Your task to perform on an android device: change the clock display to show seconds Image 0: 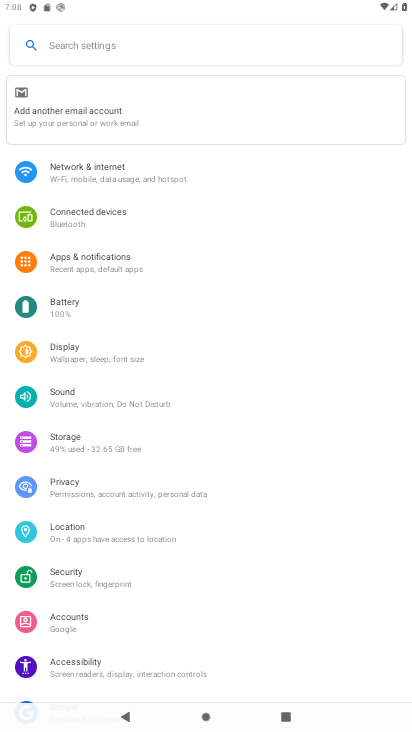
Step 0: press home button
Your task to perform on an android device: change the clock display to show seconds Image 1: 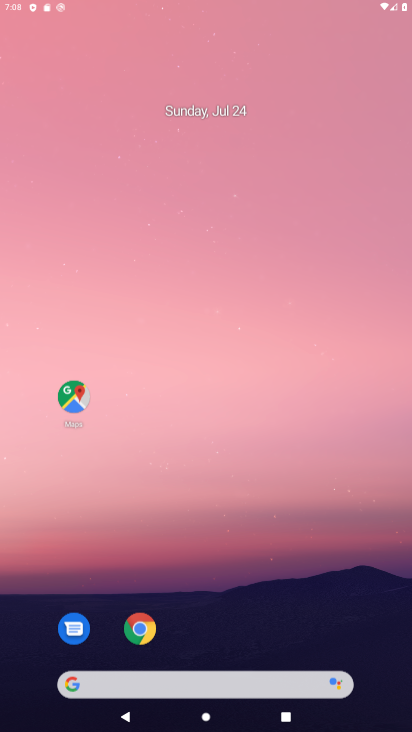
Step 1: drag from (403, 696) to (225, 5)
Your task to perform on an android device: change the clock display to show seconds Image 2: 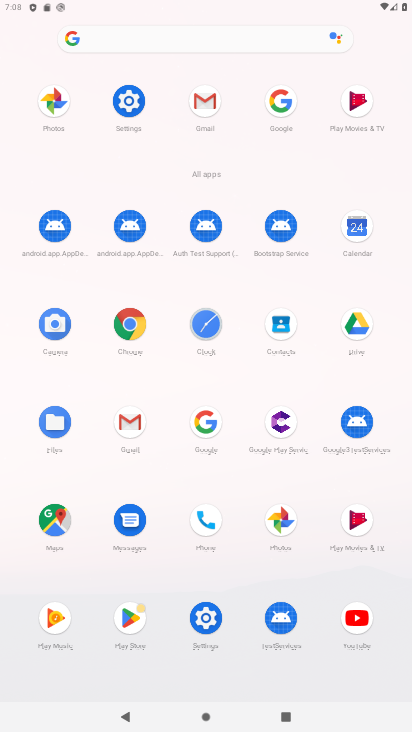
Step 2: click (212, 321)
Your task to perform on an android device: change the clock display to show seconds Image 3: 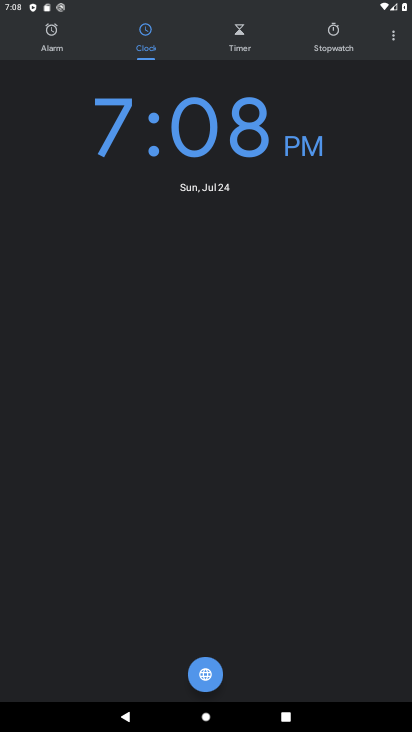
Step 3: click (394, 30)
Your task to perform on an android device: change the clock display to show seconds Image 4: 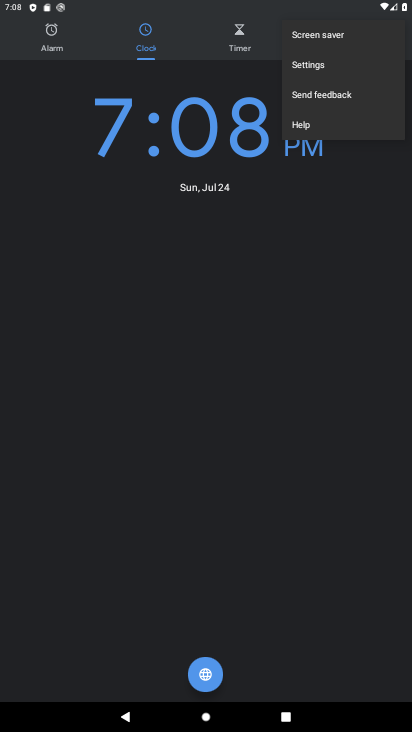
Step 4: click (312, 64)
Your task to perform on an android device: change the clock display to show seconds Image 5: 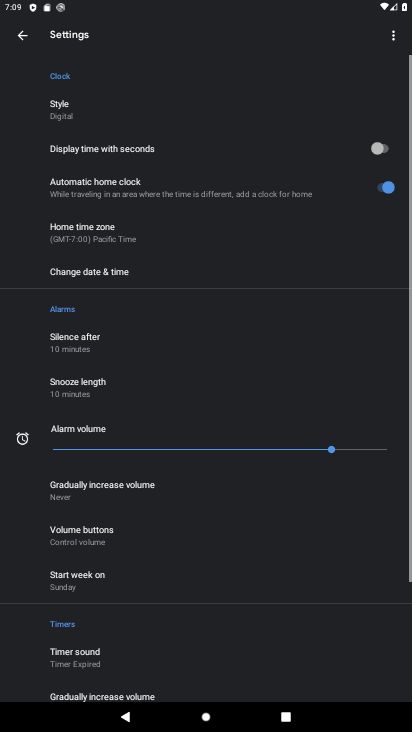
Step 5: click (368, 150)
Your task to perform on an android device: change the clock display to show seconds Image 6: 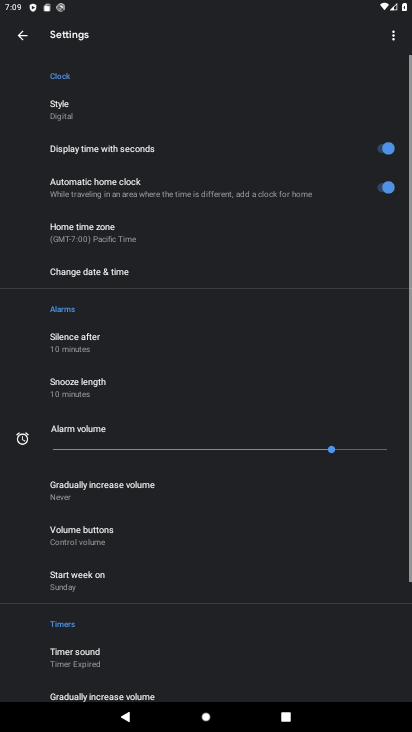
Step 6: task complete